Your task to perform on an android device: Is it going to rain this weekend? Image 0: 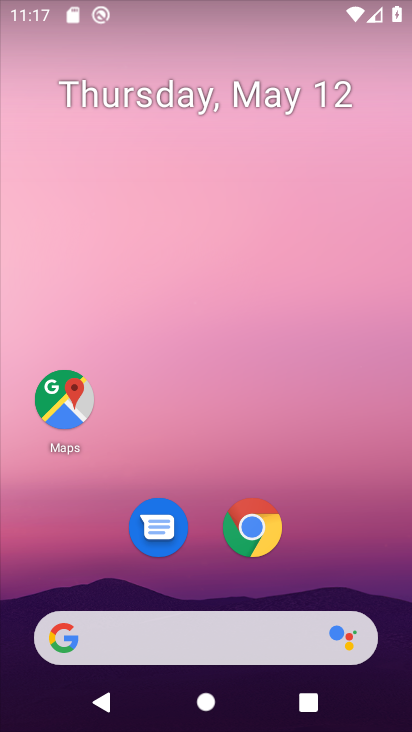
Step 0: click (236, 652)
Your task to perform on an android device: Is it going to rain this weekend? Image 1: 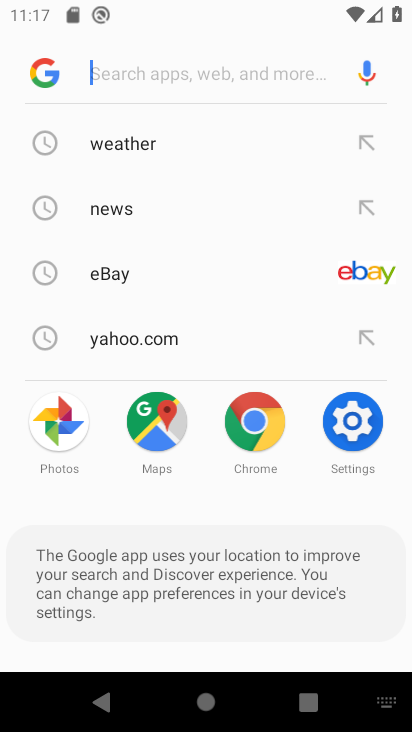
Step 1: click (129, 150)
Your task to perform on an android device: Is it going to rain this weekend? Image 2: 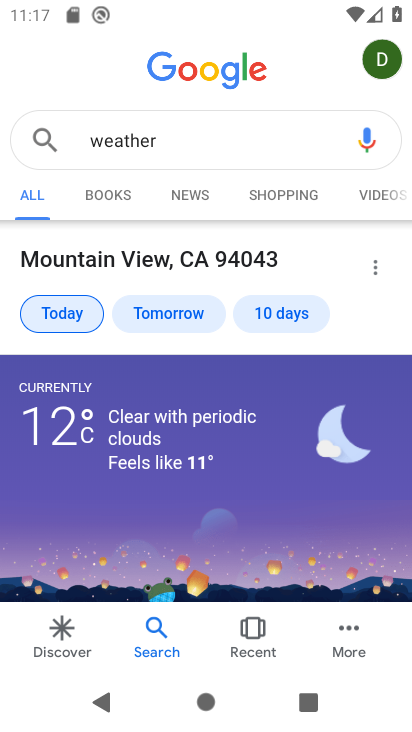
Step 2: click (182, 310)
Your task to perform on an android device: Is it going to rain this weekend? Image 3: 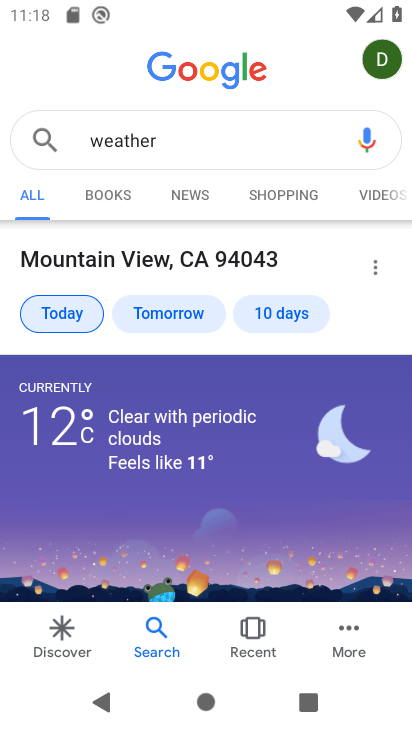
Step 3: click (182, 310)
Your task to perform on an android device: Is it going to rain this weekend? Image 4: 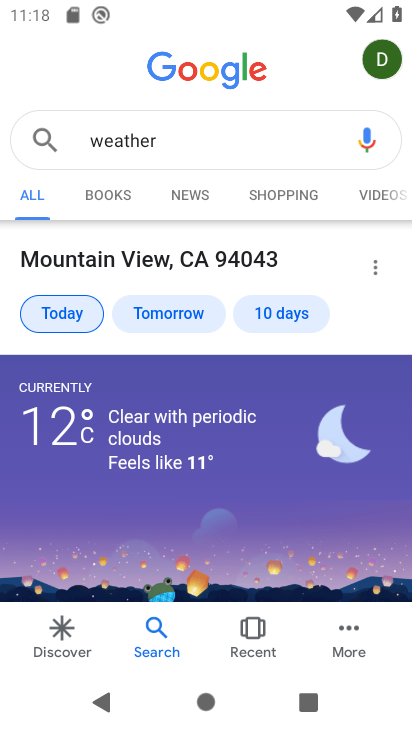
Step 4: click (277, 311)
Your task to perform on an android device: Is it going to rain this weekend? Image 5: 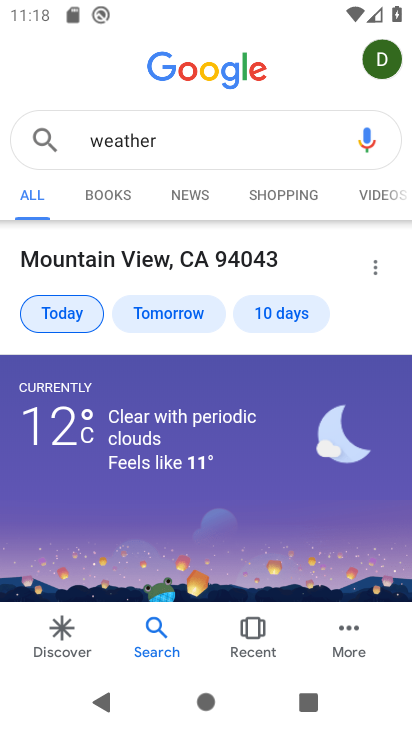
Step 5: click (277, 309)
Your task to perform on an android device: Is it going to rain this weekend? Image 6: 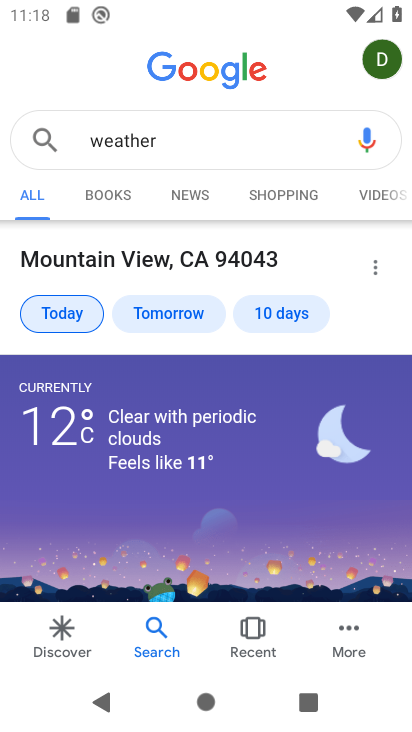
Step 6: click (186, 300)
Your task to perform on an android device: Is it going to rain this weekend? Image 7: 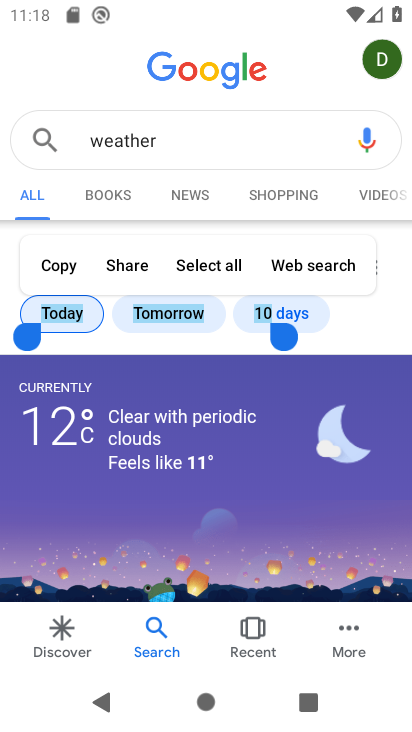
Step 7: task complete